Your task to perform on an android device: Search for sushi restaurants on Maps Image 0: 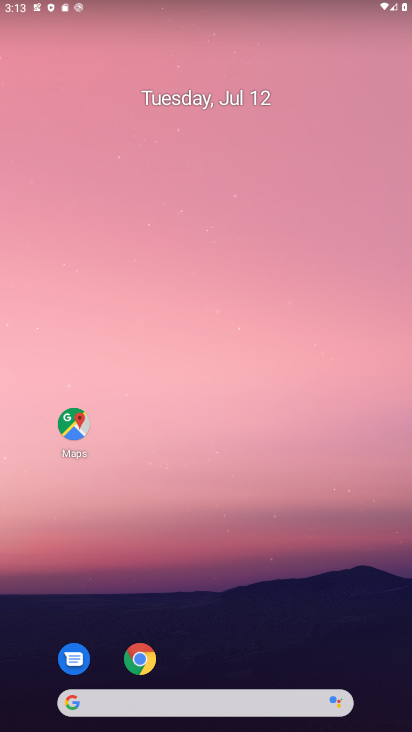
Step 0: click (227, 730)
Your task to perform on an android device: Search for sushi restaurants on Maps Image 1: 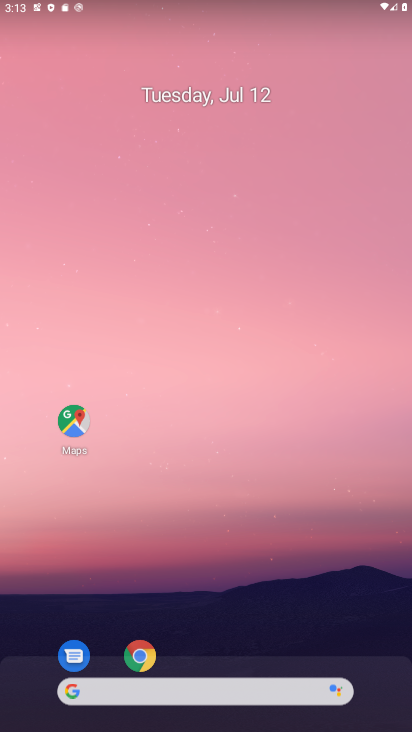
Step 1: drag from (230, 195) to (230, 154)
Your task to perform on an android device: Search for sushi restaurants on Maps Image 2: 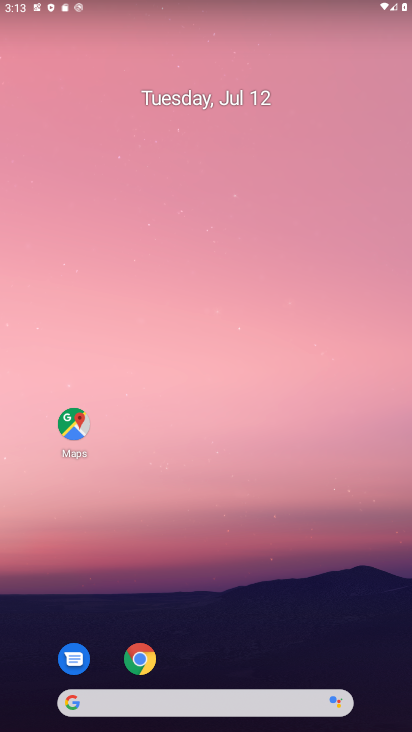
Step 2: drag from (208, 717) to (201, 218)
Your task to perform on an android device: Search for sushi restaurants on Maps Image 3: 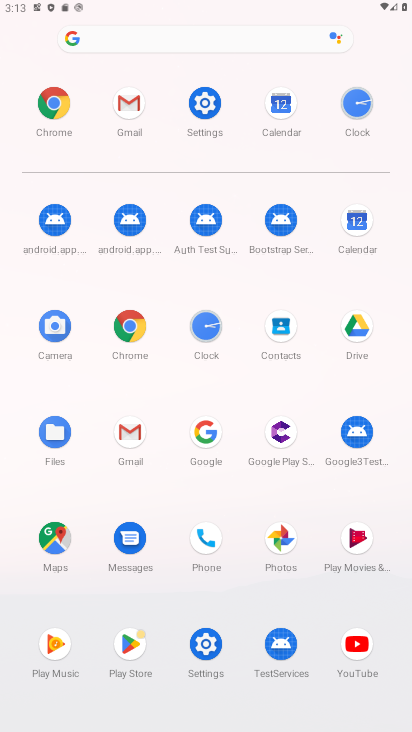
Step 3: click (56, 541)
Your task to perform on an android device: Search for sushi restaurants on Maps Image 4: 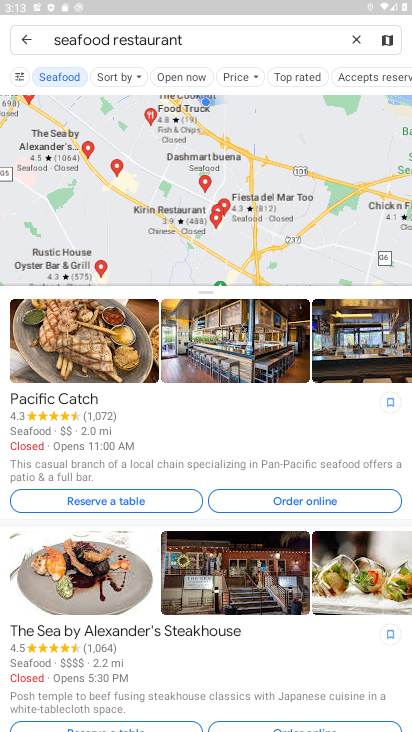
Step 4: click (354, 36)
Your task to perform on an android device: Search for sushi restaurants on Maps Image 5: 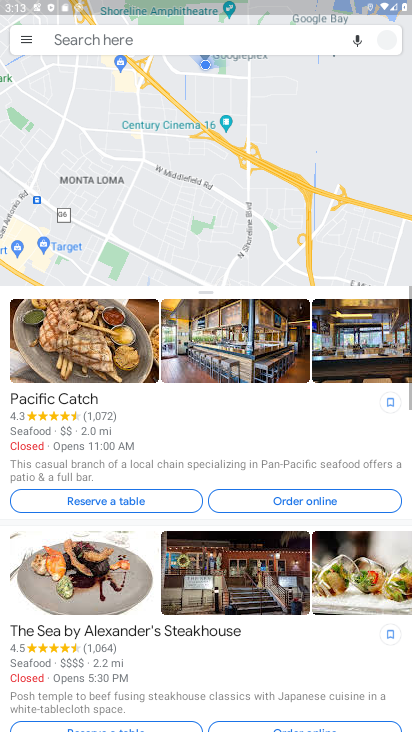
Step 5: click (207, 38)
Your task to perform on an android device: Search for sushi restaurants on Maps Image 6: 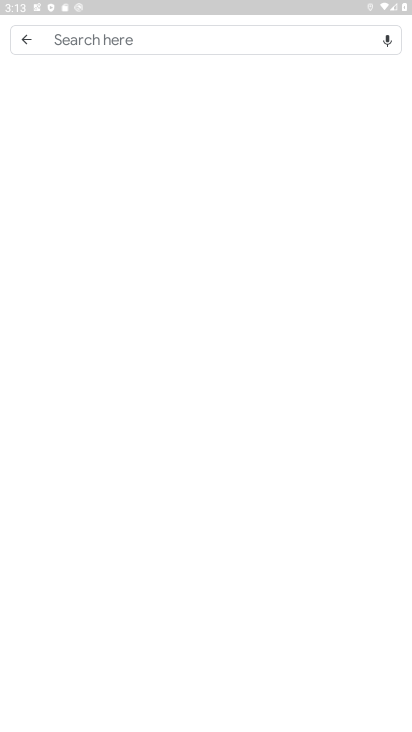
Step 6: click (207, 38)
Your task to perform on an android device: Search for sushi restaurants on Maps Image 7: 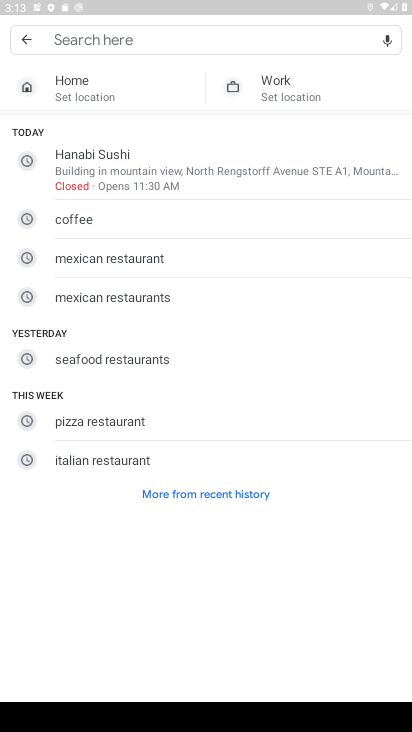
Step 7: type "sushi restaurants"
Your task to perform on an android device: Search for sushi restaurants on Maps Image 8: 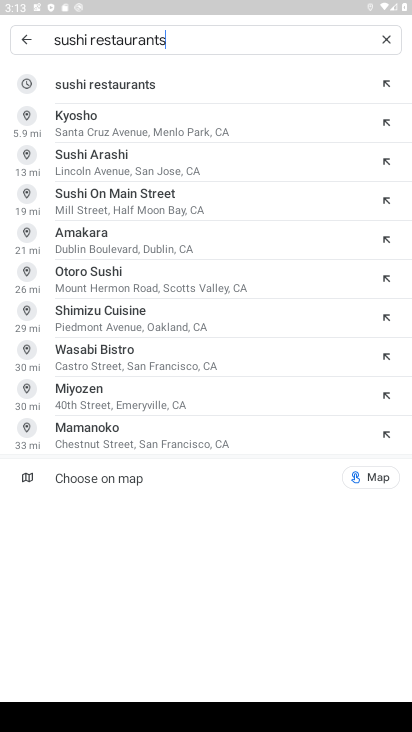
Step 8: click (80, 89)
Your task to perform on an android device: Search for sushi restaurants on Maps Image 9: 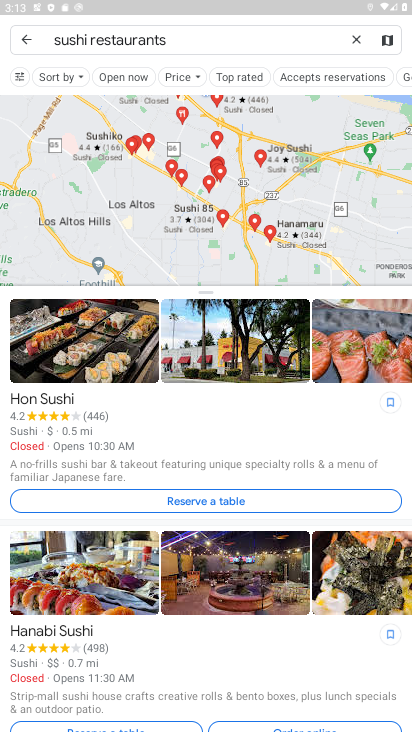
Step 9: task complete